Your task to perform on an android device: see tabs open on other devices in the chrome app Image 0: 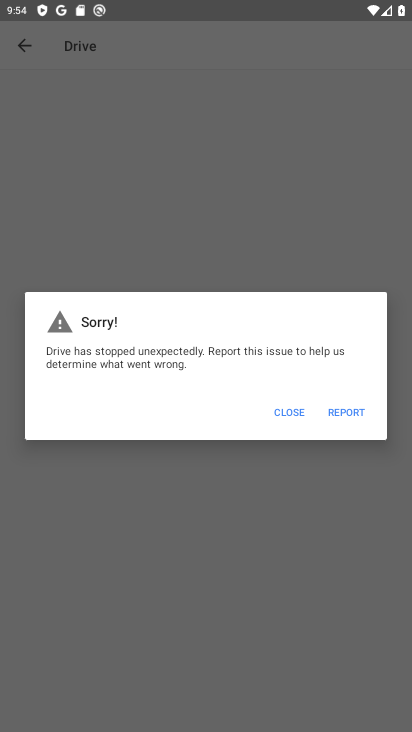
Step 0: press home button
Your task to perform on an android device: see tabs open on other devices in the chrome app Image 1: 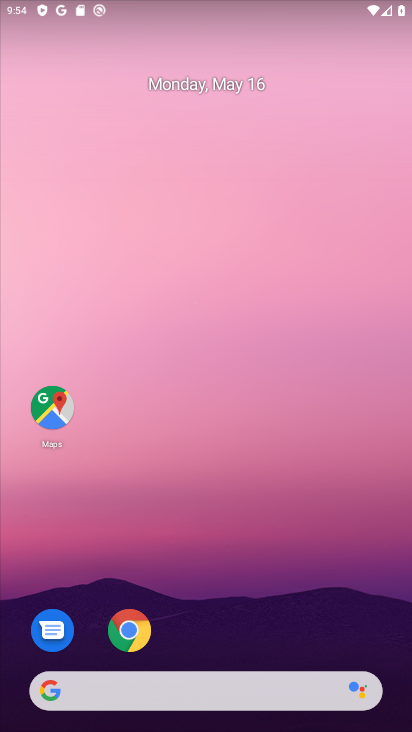
Step 1: click (140, 626)
Your task to perform on an android device: see tabs open on other devices in the chrome app Image 2: 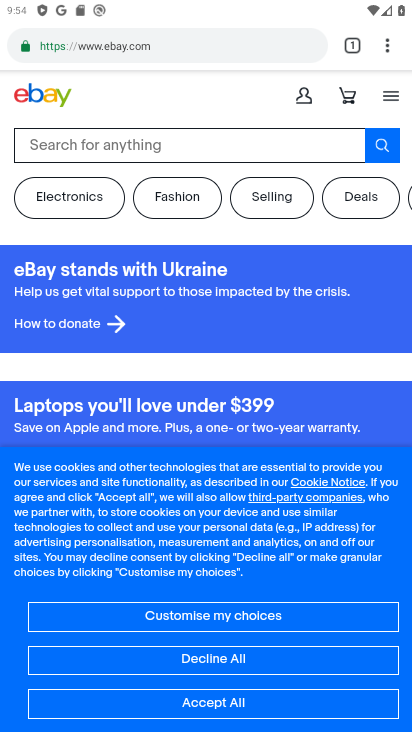
Step 2: click (393, 48)
Your task to perform on an android device: see tabs open on other devices in the chrome app Image 3: 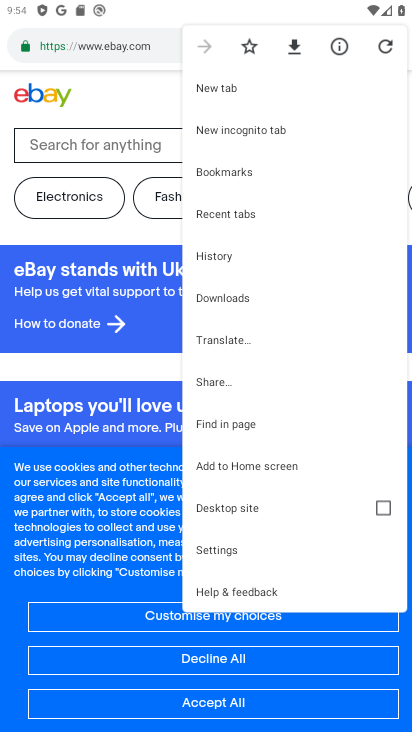
Step 3: click (234, 214)
Your task to perform on an android device: see tabs open on other devices in the chrome app Image 4: 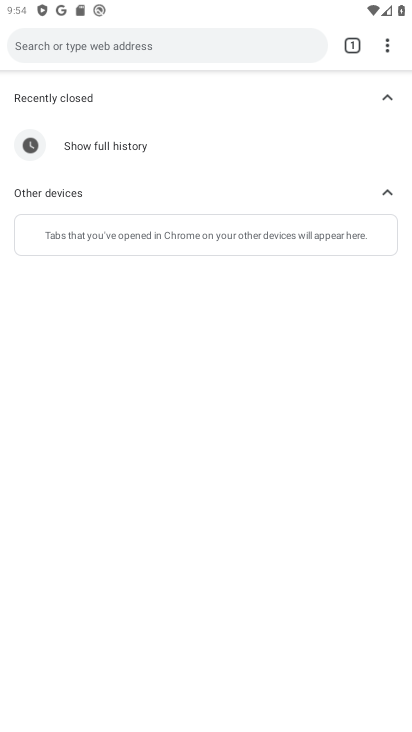
Step 4: task complete